Your task to perform on an android device: open the mobile data screen to see how much data has been used Image 0: 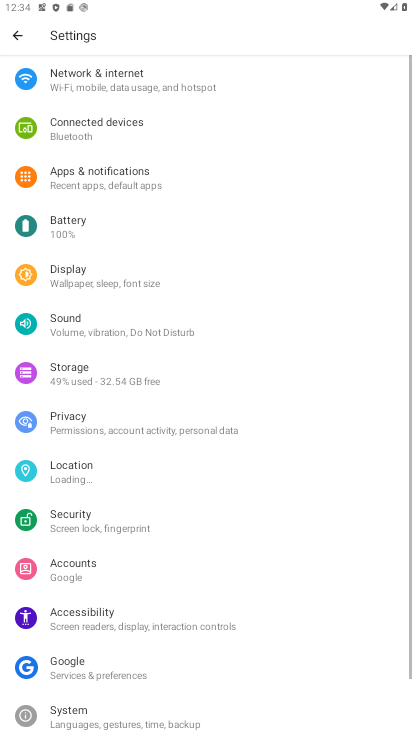
Step 0: drag from (167, 696) to (262, 107)
Your task to perform on an android device: open the mobile data screen to see how much data has been used Image 1: 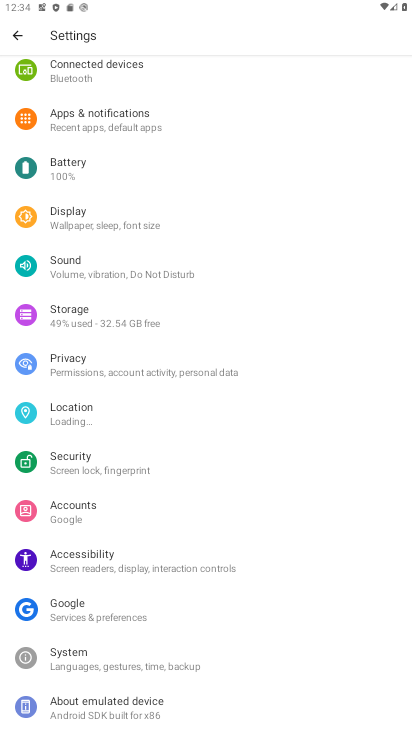
Step 1: drag from (167, 144) to (246, 723)
Your task to perform on an android device: open the mobile data screen to see how much data has been used Image 2: 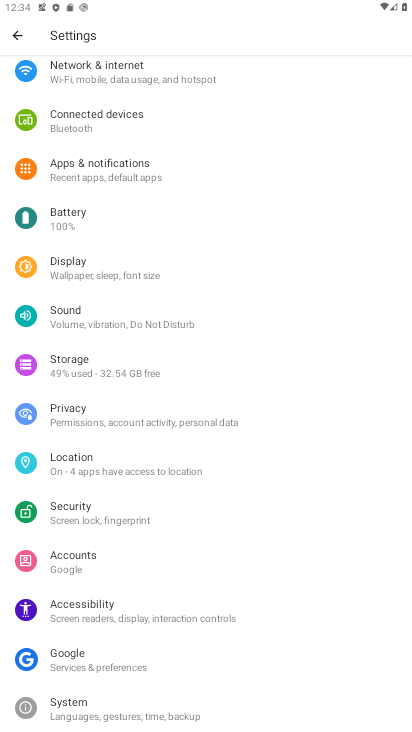
Step 2: drag from (154, 81) to (165, 586)
Your task to perform on an android device: open the mobile data screen to see how much data has been used Image 3: 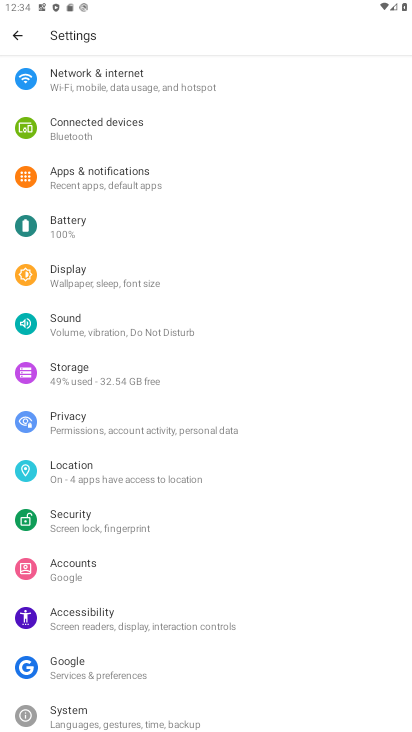
Step 3: click (126, 91)
Your task to perform on an android device: open the mobile data screen to see how much data has been used Image 4: 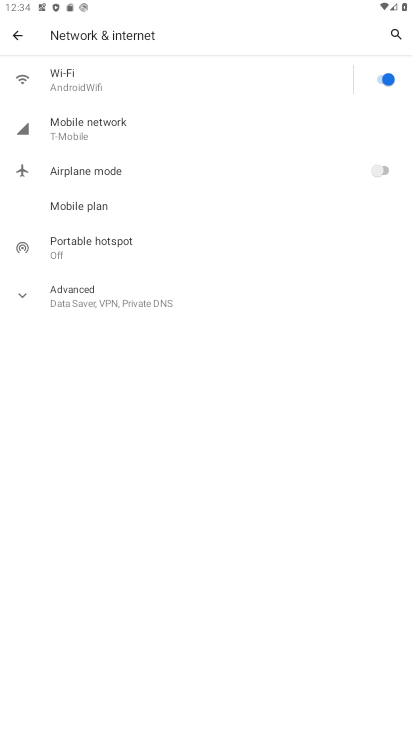
Step 4: drag from (236, 222) to (283, 615)
Your task to perform on an android device: open the mobile data screen to see how much data has been used Image 5: 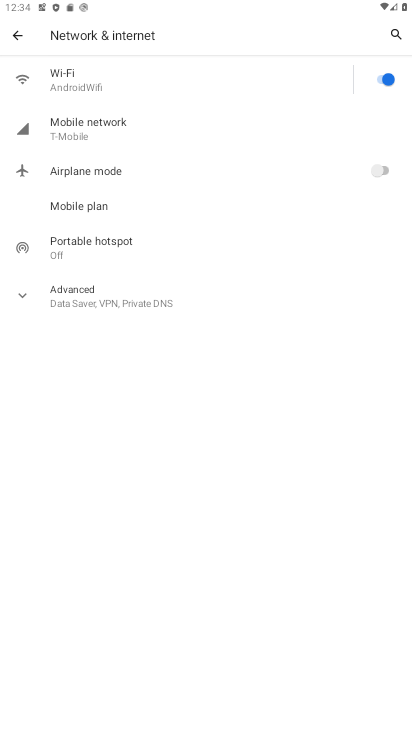
Step 5: click (146, 126)
Your task to perform on an android device: open the mobile data screen to see how much data has been used Image 6: 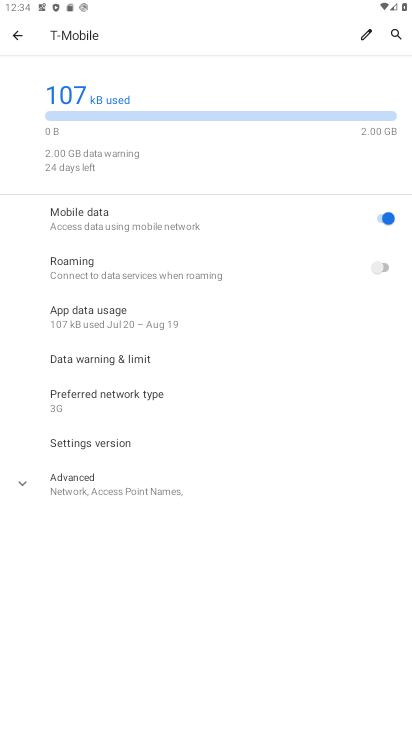
Step 6: task complete